Your task to perform on an android device: show emergency info Image 0: 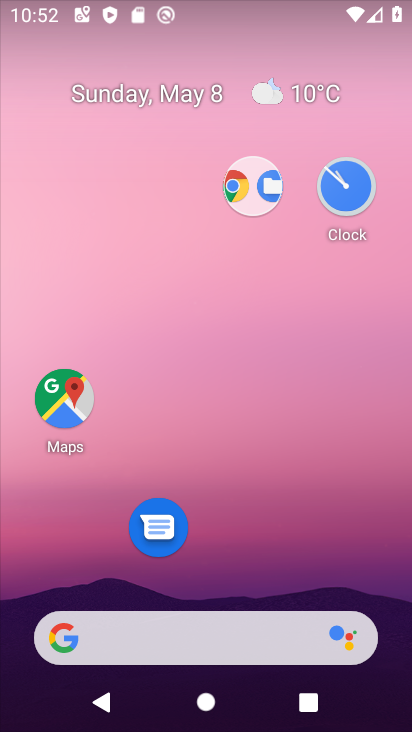
Step 0: drag from (277, 565) to (232, 71)
Your task to perform on an android device: show emergency info Image 1: 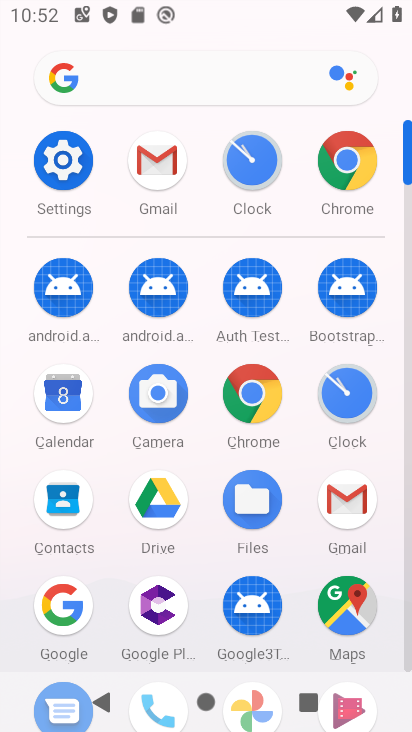
Step 1: click (55, 172)
Your task to perform on an android device: show emergency info Image 2: 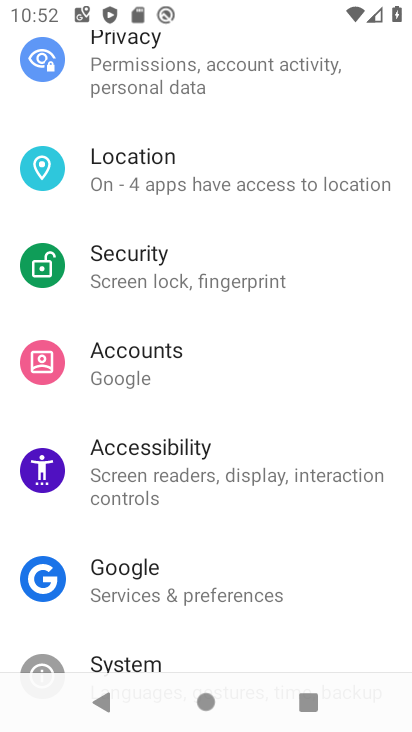
Step 2: drag from (221, 587) to (214, 128)
Your task to perform on an android device: show emergency info Image 3: 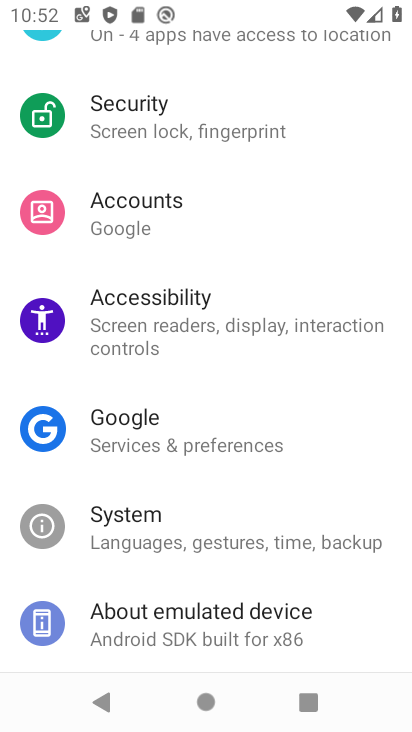
Step 3: click (233, 622)
Your task to perform on an android device: show emergency info Image 4: 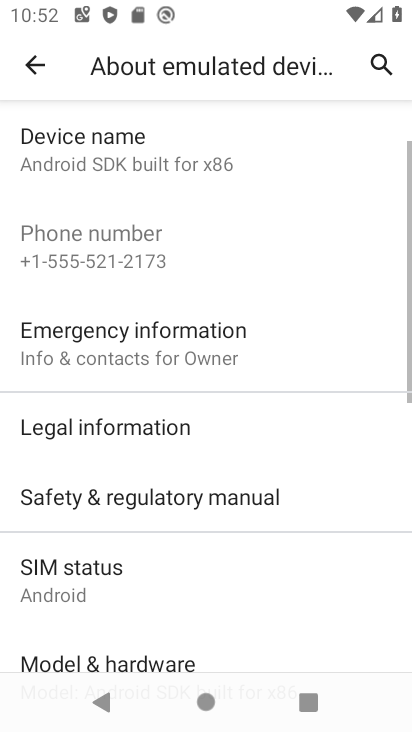
Step 4: click (185, 351)
Your task to perform on an android device: show emergency info Image 5: 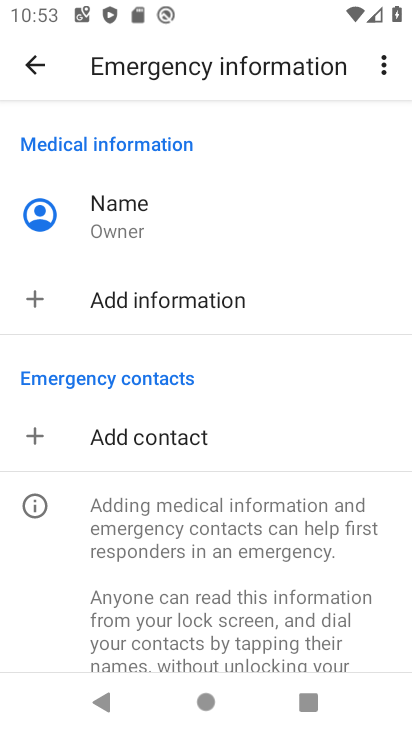
Step 5: task complete